Your task to perform on an android device: toggle wifi Image 0: 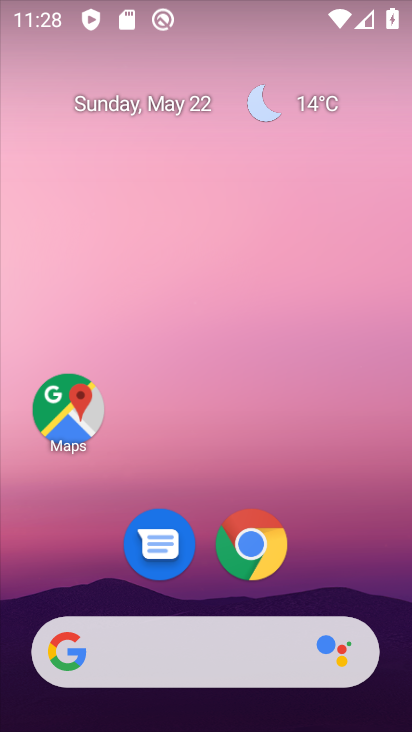
Step 0: drag from (308, 599) to (223, 141)
Your task to perform on an android device: toggle wifi Image 1: 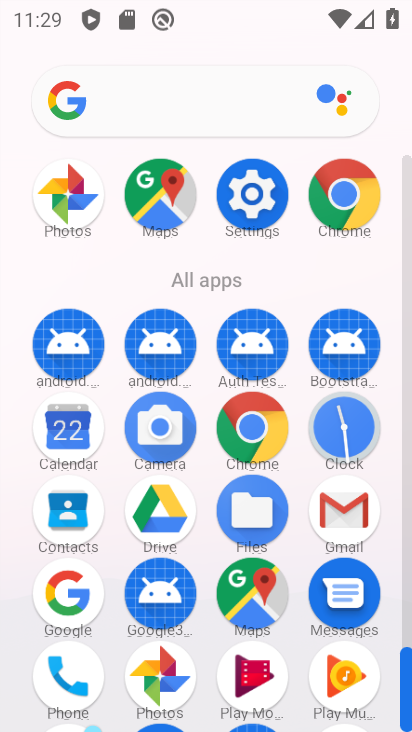
Step 1: click (258, 195)
Your task to perform on an android device: toggle wifi Image 2: 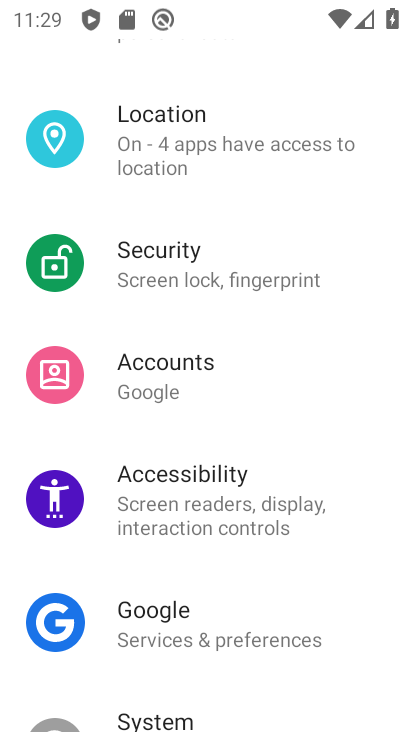
Step 2: drag from (200, 190) to (228, 566)
Your task to perform on an android device: toggle wifi Image 3: 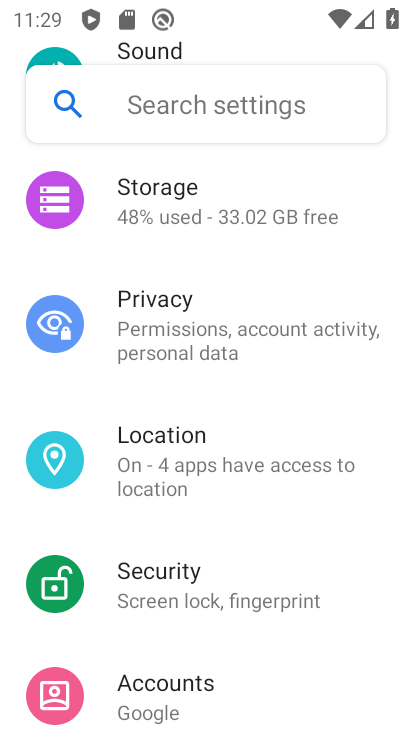
Step 3: drag from (244, 268) to (235, 619)
Your task to perform on an android device: toggle wifi Image 4: 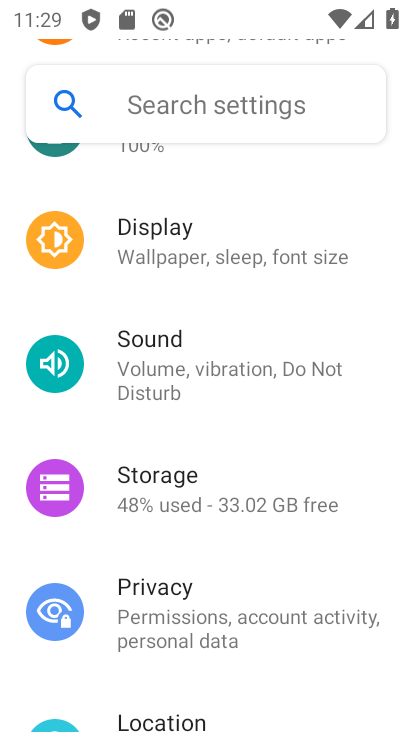
Step 4: drag from (234, 248) to (220, 541)
Your task to perform on an android device: toggle wifi Image 5: 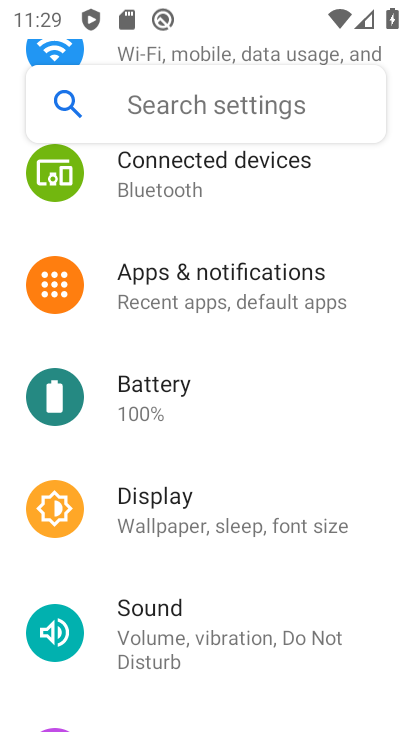
Step 5: drag from (235, 308) to (244, 578)
Your task to perform on an android device: toggle wifi Image 6: 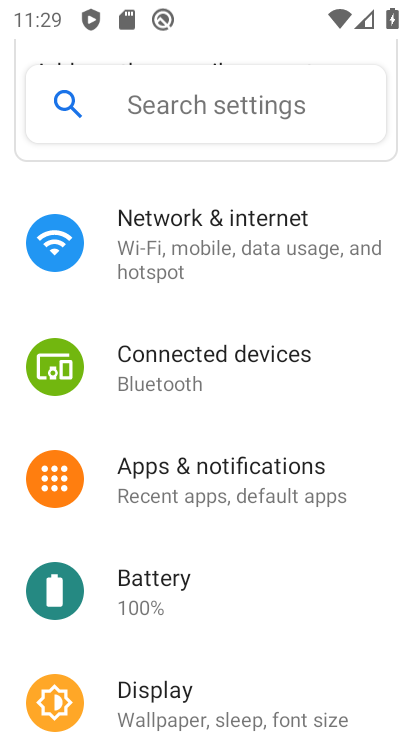
Step 6: click (183, 258)
Your task to perform on an android device: toggle wifi Image 7: 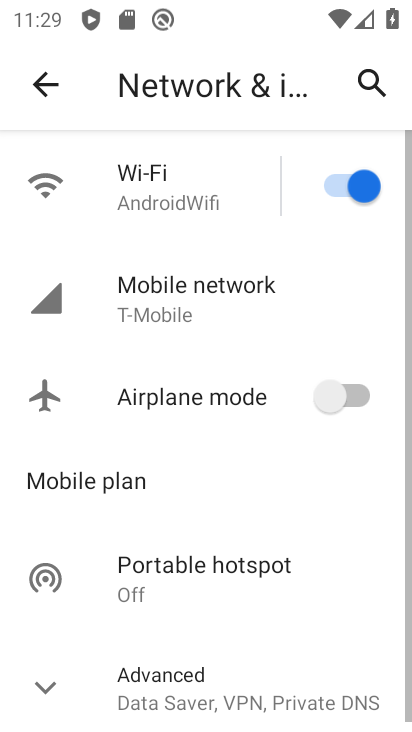
Step 7: click (331, 179)
Your task to perform on an android device: toggle wifi Image 8: 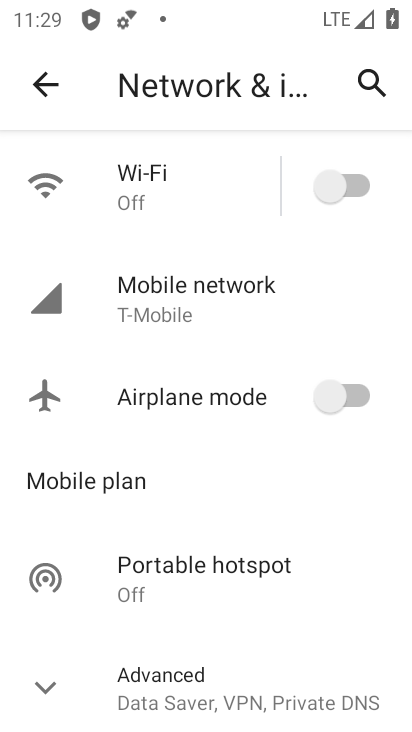
Step 8: task complete